Your task to perform on an android device: Go to display settings Image 0: 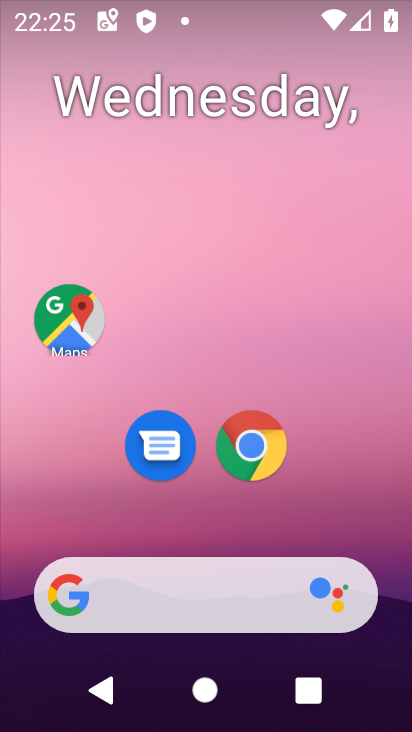
Step 0: drag from (330, 514) to (354, 170)
Your task to perform on an android device: Go to display settings Image 1: 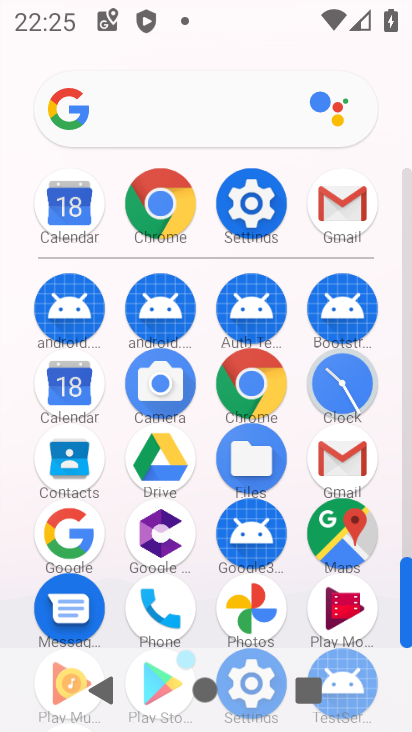
Step 1: click (252, 200)
Your task to perform on an android device: Go to display settings Image 2: 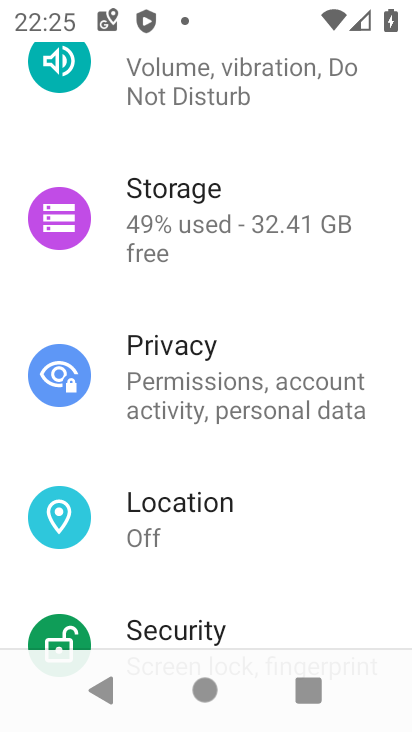
Step 2: task complete